Your task to perform on an android device: Search for 5 star sushi restaurants on Maps Image 0: 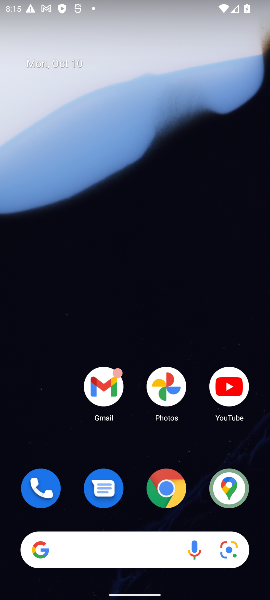
Step 0: drag from (147, 453) to (147, 314)
Your task to perform on an android device: Search for 5 star sushi restaurants on Maps Image 1: 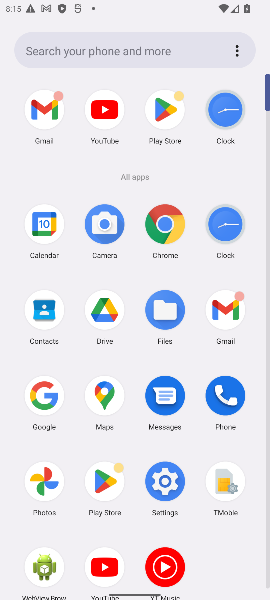
Step 1: click (97, 399)
Your task to perform on an android device: Search for 5 star sushi restaurants on Maps Image 2: 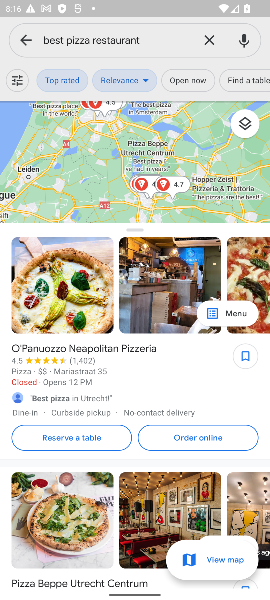
Step 2: click (210, 37)
Your task to perform on an android device: Search for 5 star sushi restaurants on Maps Image 3: 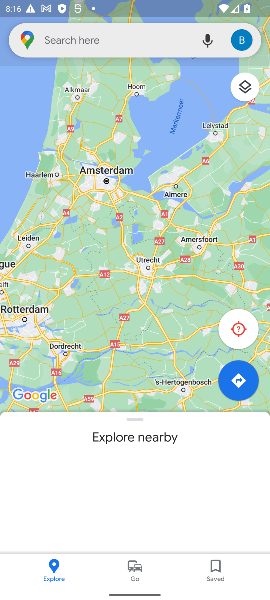
Step 3: click (89, 41)
Your task to perform on an android device: Search for 5 star sushi restaurants on Maps Image 4: 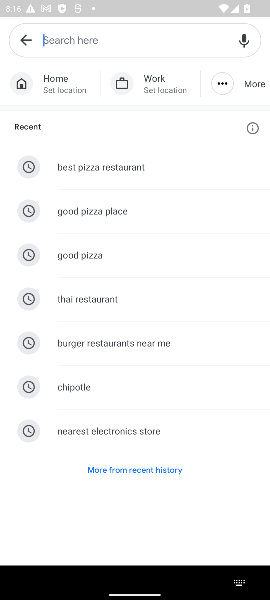
Step 4: type "5 star sushi restaurants"
Your task to perform on an android device: Search for 5 star sushi restaurants on Maps Image 5: 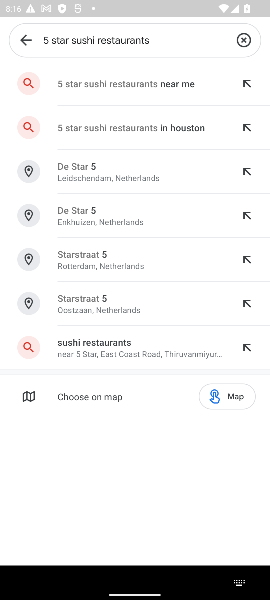
Step 5: press enter
Your task to perform on an android device: Search for 5 star sushi restaurants on Maps Image 6: 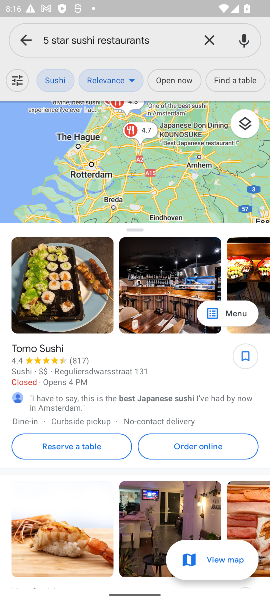
Step 6: task complete